Your task to perform on an android device: open chrome and create a bookmark for the current page Image 0: 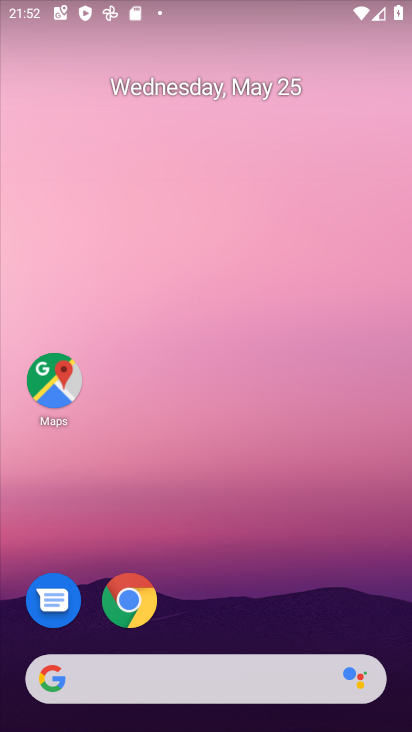
Step 0: drag from (330, 624) to (269, 138)
Your task to perform on an android device: open chrome and create a bookmark for the current page Image 1: 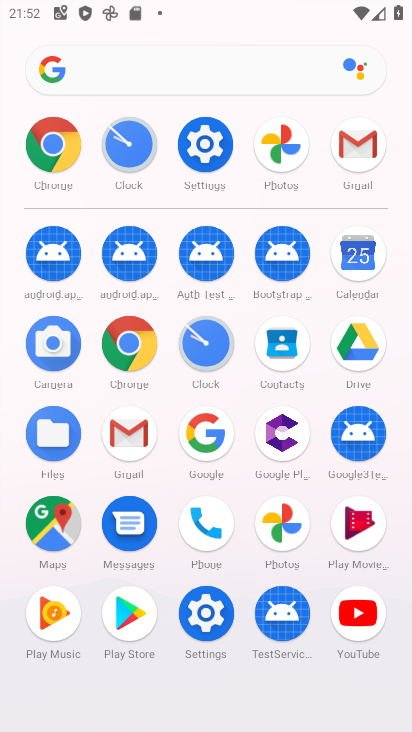
Step 1: click (112, 344)
Your task to perform on an android device: open chrome and create a bookmark for the current page Image 2: 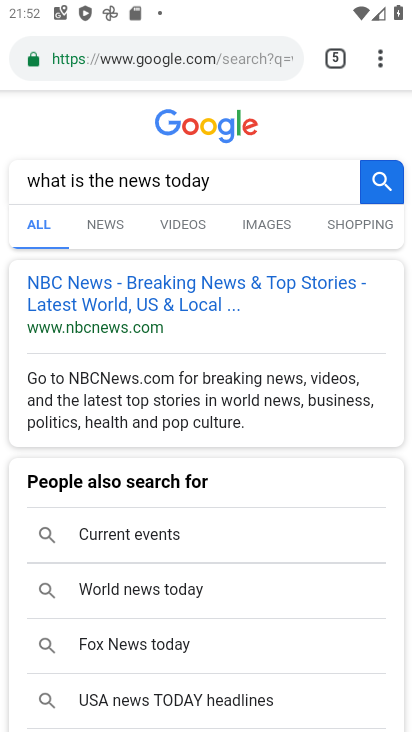
Step 2: task complete